Your task to perform on an android device: find which apps use the phone's location Image 0: 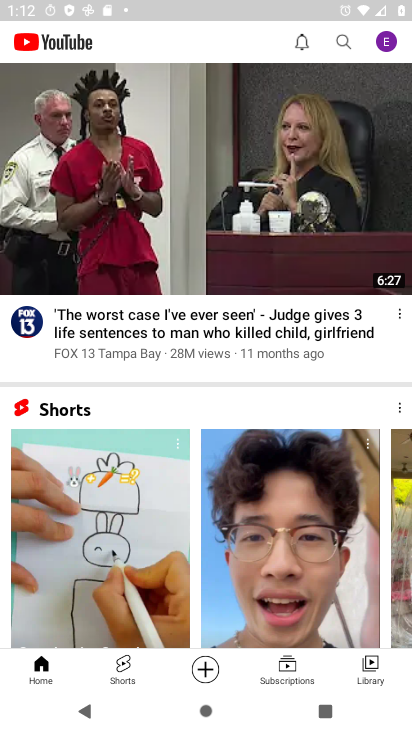
Step 0: press home button
Your task to perform on an android device: find which apps use the phone's location Image 1: 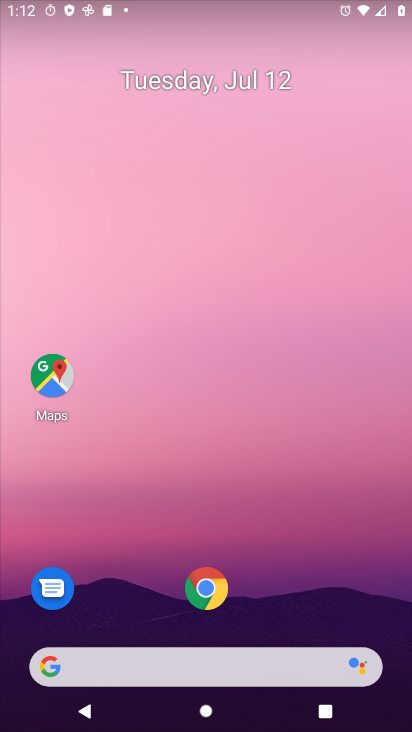
Step 1: drag from (153, 658) to (295, 40)
Your task to perform on an android device: find which apps use the phone's location Image 2: 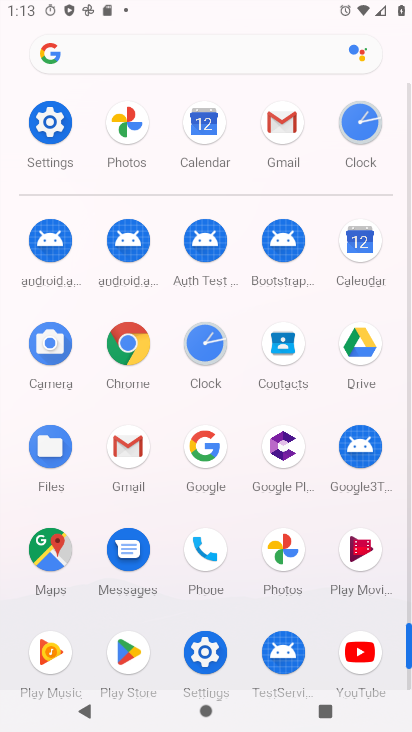
Step 2: click (48, 127)
Your task to perform on an android device: find which apps use the phone's location Image 3: 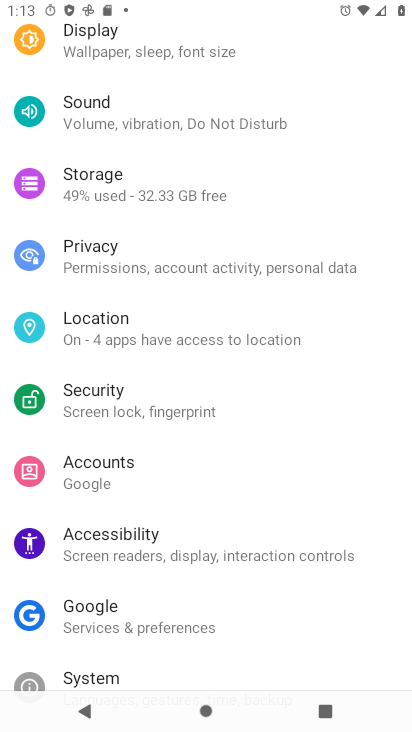
Step 3: drag from (204, 666) to (284, 36)
Your task to perform on an android device: find which apps use the phone's location Image 4: 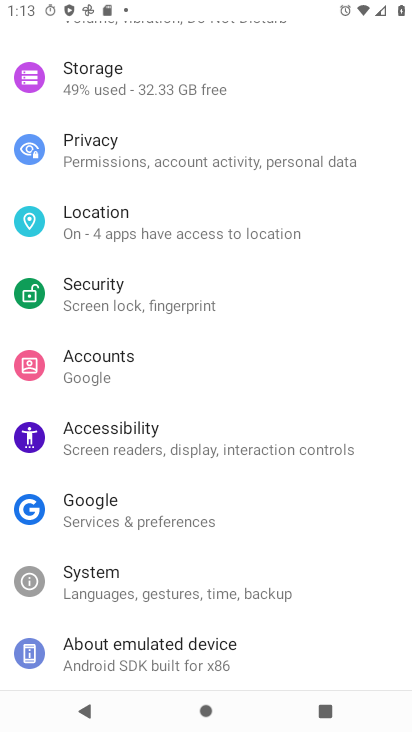
Step 4: click (101, 224)
Your task to perform on an android device: find which apps use the phone's location Image 5: 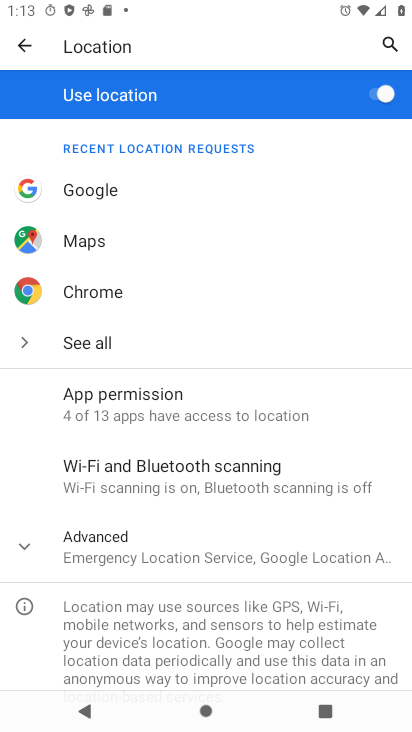
Step 5: click (119, 403)
Your task to perform on an android device: find which apps use the phone's location Image 6: 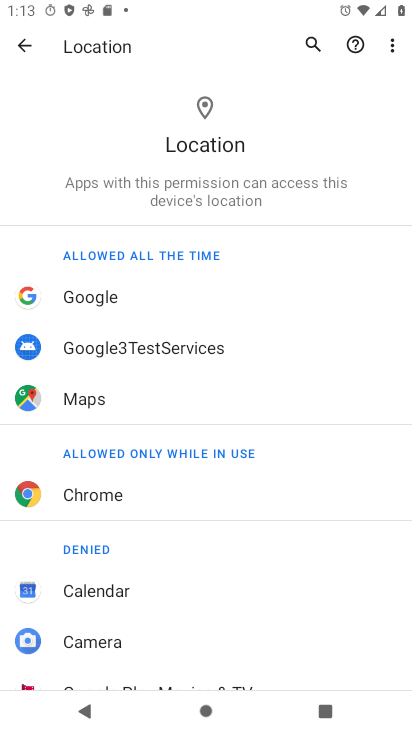
Step 6: drag from (223, 628) to (385, 299)
Your task to perform on an android device: find which apps use the phone's location Image 7: 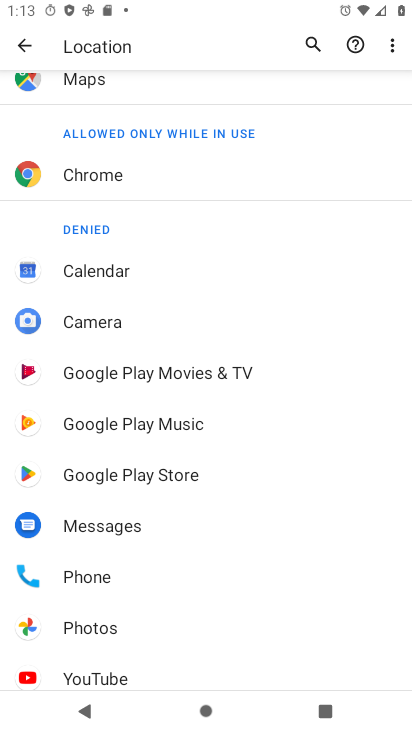
Step 7: click (85, 563)
Your task to perform on an android device: find which apps use the phone's location Image 8: 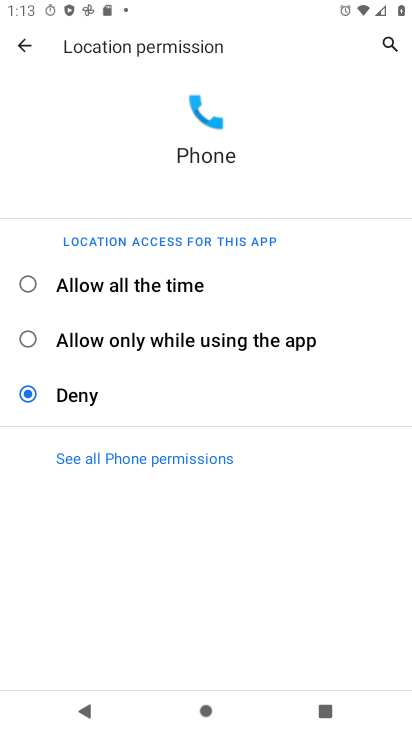
Step 8: task complete